Your task to perform on an android device: check google app version Image 0: 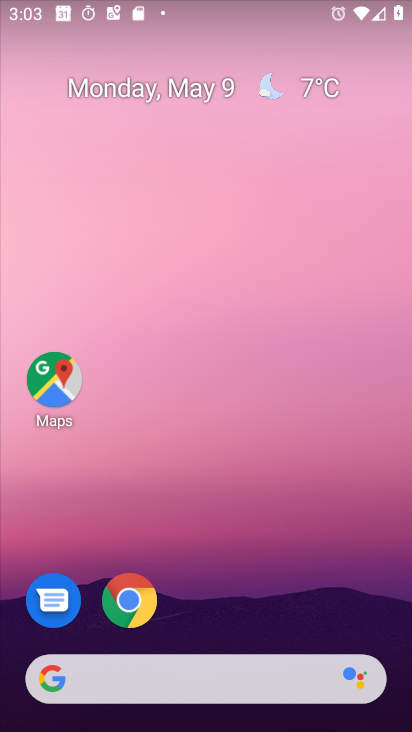
Step 0: drag from (187, 671) to (196, 211)
Your task to perform on an android device: check google app version Image 1: 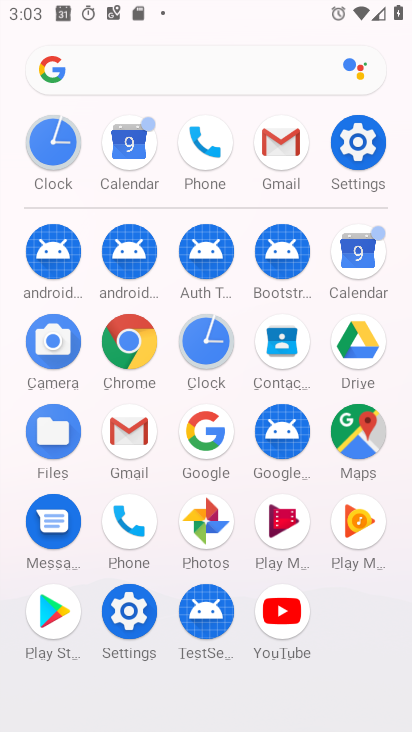
Step 1: click (205, 436)
Your task to perform on an android device: check google app version Image 2: 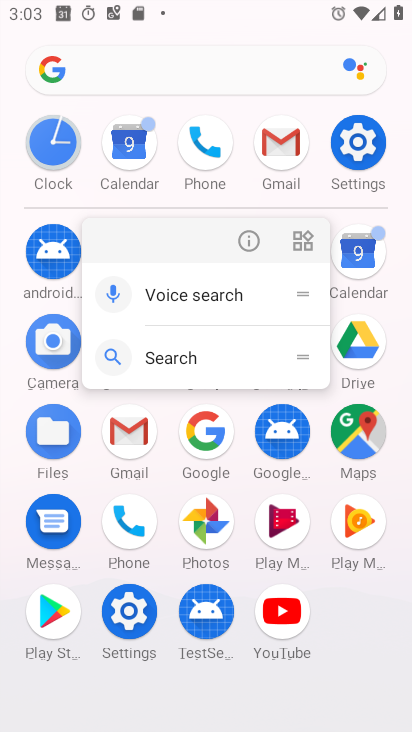
Step 2: click (254, 233)
Your task to perform on an android device: check google app version Image 3: 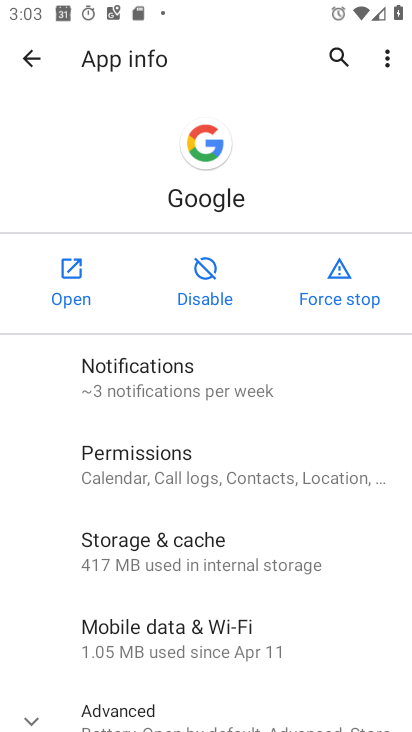
Step 3: drag from (236, 578) to (205, 161)
Your task to perform on an android device: check google app version Image 4: 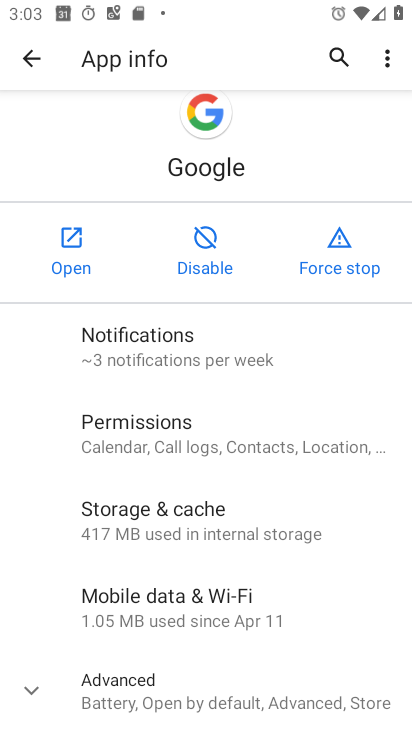
Step 4: click (225, 706)
Your task to perform on an android device: check google app version Image 5: 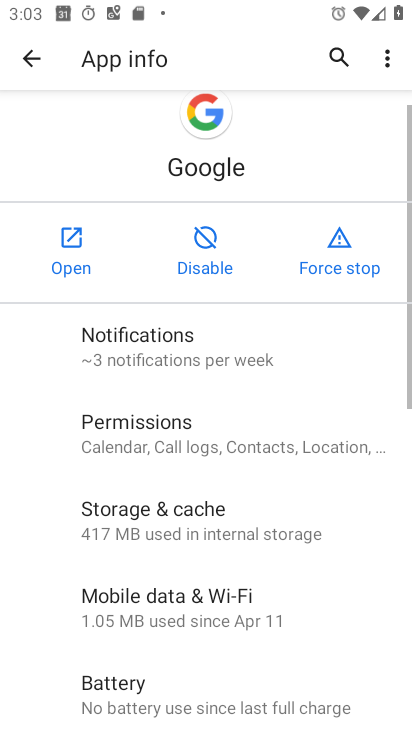
Step 5: task complete